Your task to perform on an android device: Open Google Maps and go to "Timeline" Image 0: 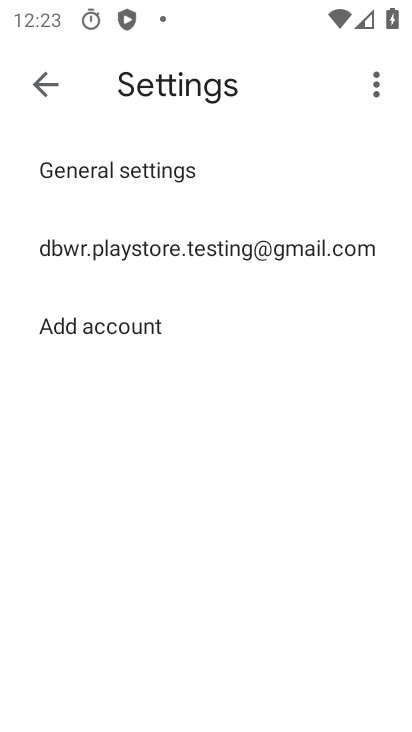
Step 0: press home button
Your task to perform on an android device: Open Google Maps and go to "Timeline" Image 1: 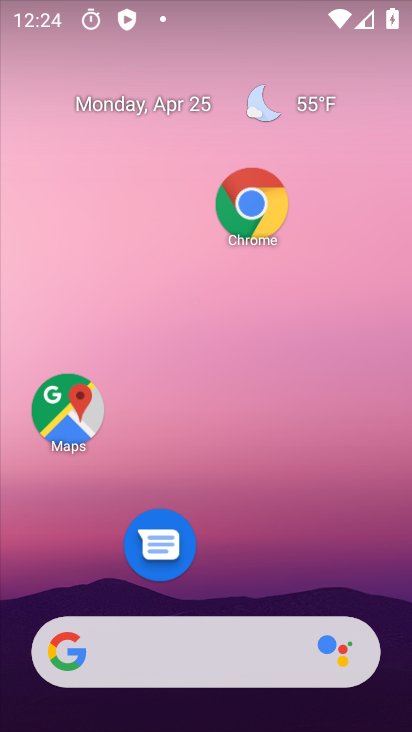
Step 1: drag from (276, 706) to (351, 246)
Your task to perform on an android device: Open Google Maps and go to "Timeline" Image 2: 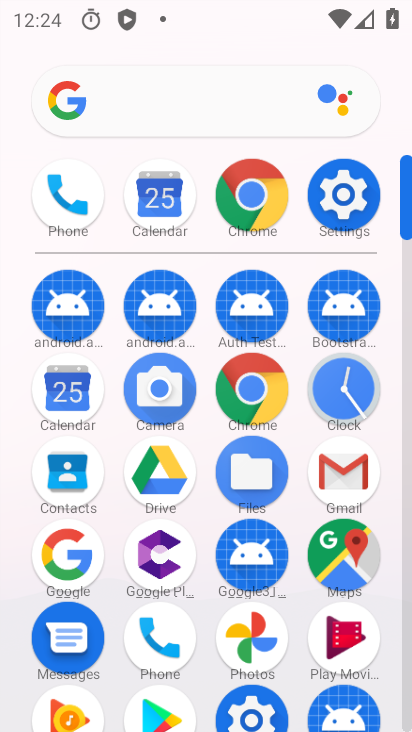
Step 2: click (341, 550)
Your task to perform on an android device: Open Google Maps and go to "Timeline" Image 3: 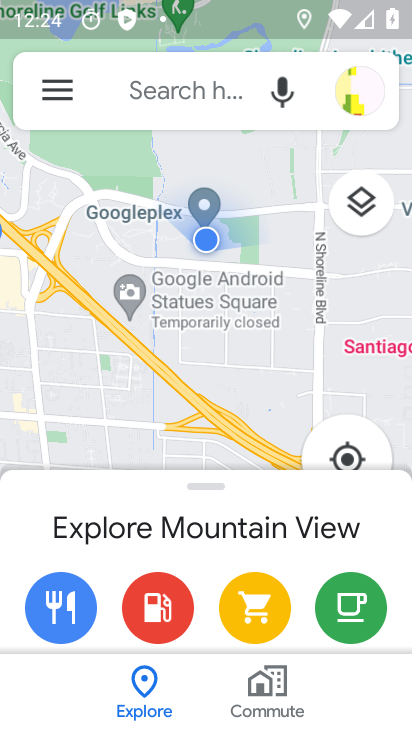
Step 3: click (67, 90)
Your task to perform on an android device: Open Google Maps and go to "Timeline" Image 4: 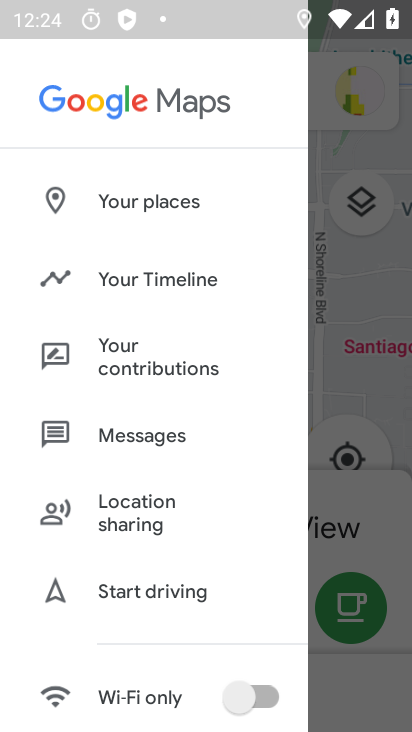
Step 4: click (163, 269)
Your task to perform on an android device: Open Google Maps and go to "Timeline" Image 5: 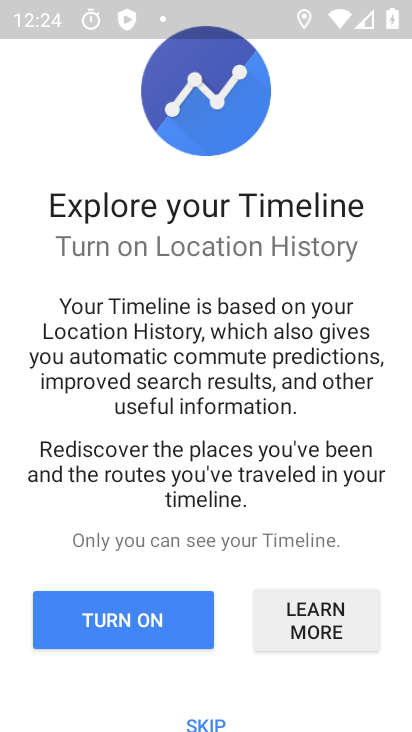
Step 5: click (204, 727)
Your task to perform on an android device: Open Google Maps and go to "Timeline" Image 6: 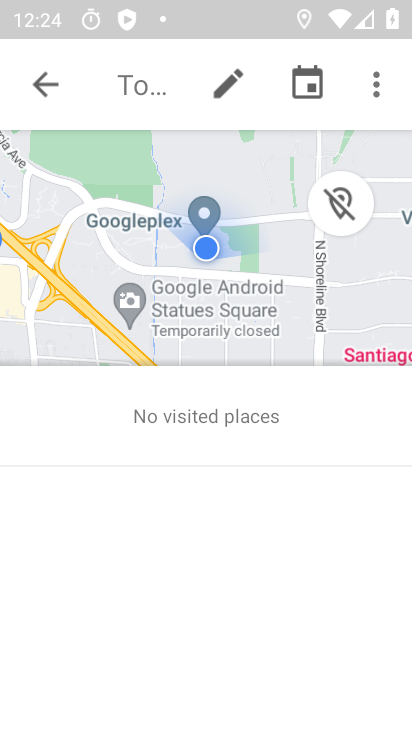
Step 6: task complete